Your task to perform on an android device: Show me popular videos on Youtube Image 0: 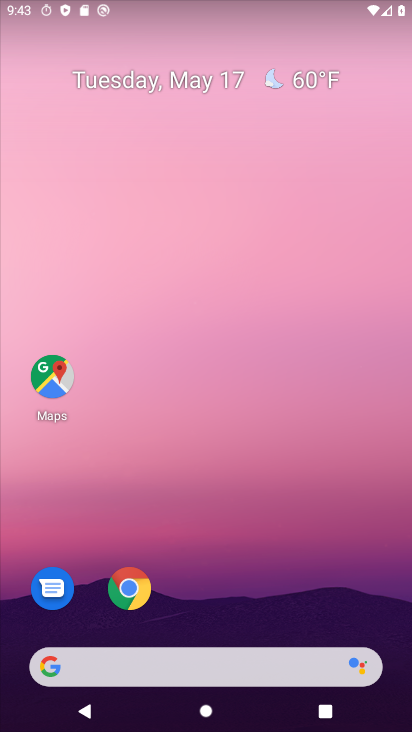
Step 0: drag from (207, 307) to (126, 78)
Your task to perform on an android device: Show me popular videos on Youtube Image 1: 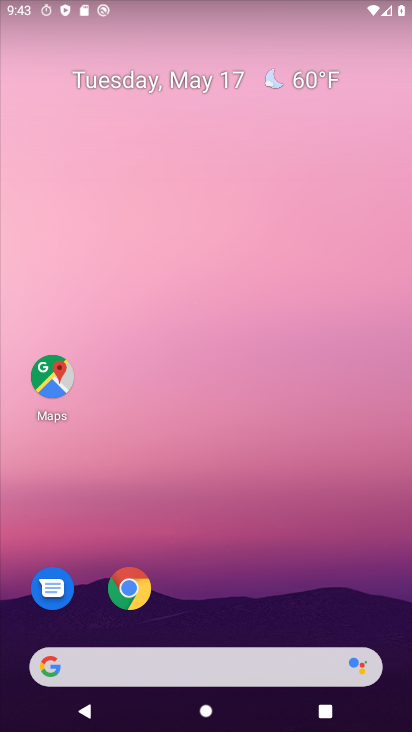
Step 1: drag from (363, 648) to (164, 222)
Your task to perform on an android device: Show me popular videos on Youtube Image 2: 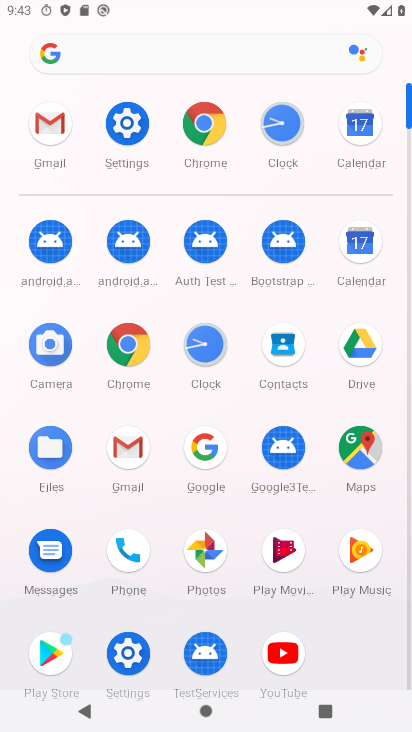
Step 2: click (283, 664)
Your task to perform on an android device: Show me popular videos on Youtube Image 3: 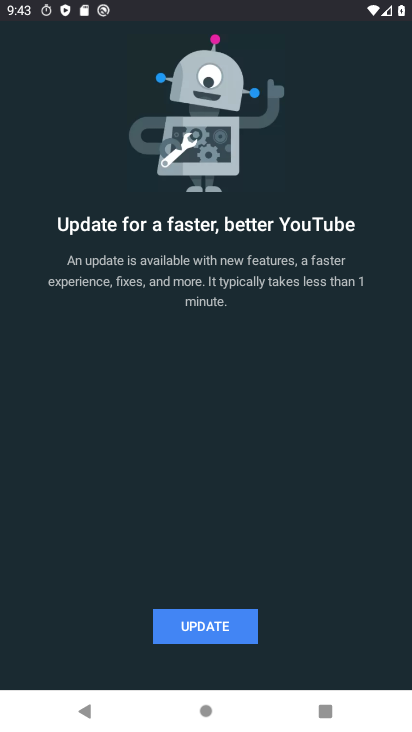
Step 3: click (193, 616)
Your task to perform on an android device: Show me popular videos on Youtube Image 4: 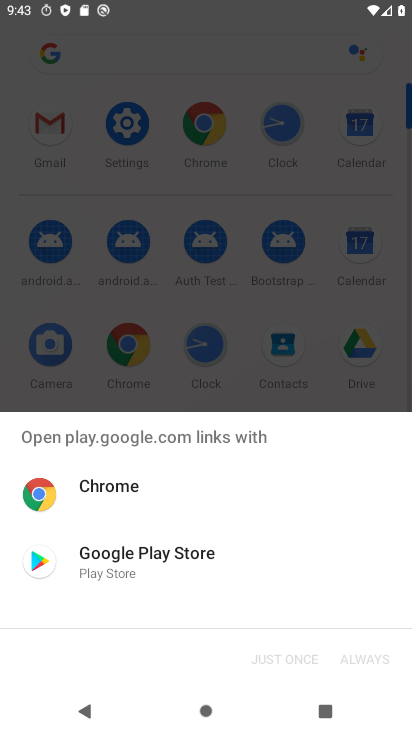
Step 4: click (125, 553)
Your task to perform on an android device: Show me popular videos on Youtube Image 5: 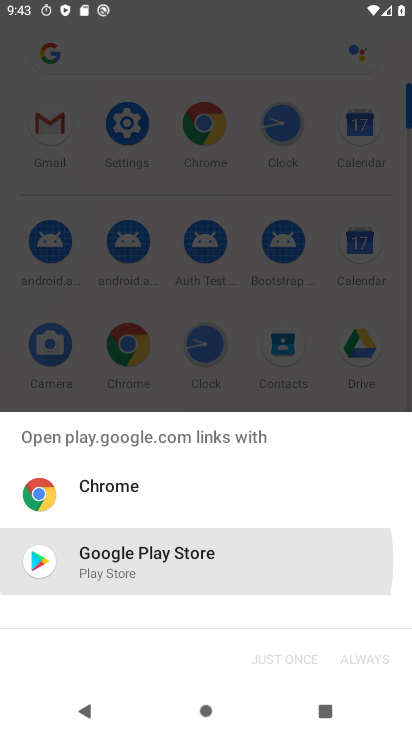
Step 5: click (125, 556)
Your task to perform on an android device: Show me popular videos on Youtube Image 6: 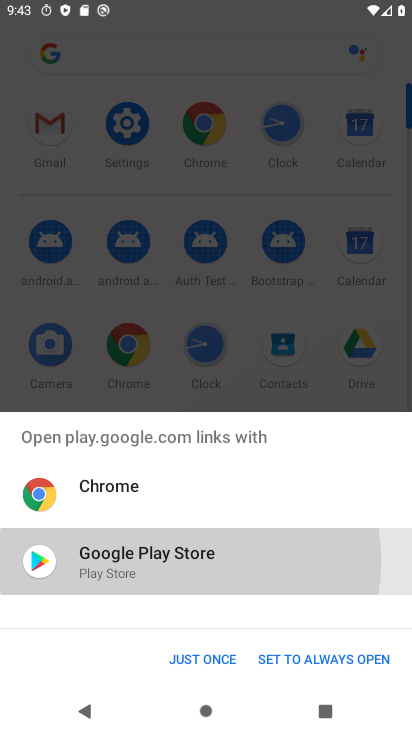
Step 6: click (126, 558)
Your task to perform on an android device: Show me popular videos on Youtube Image 7: 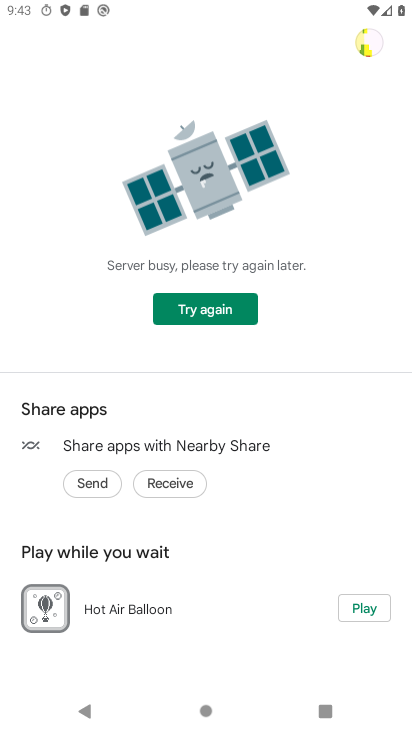
Step 7: task complete